Your task to perform on an android device: toggle priority inbox in the gmail app Image 0: 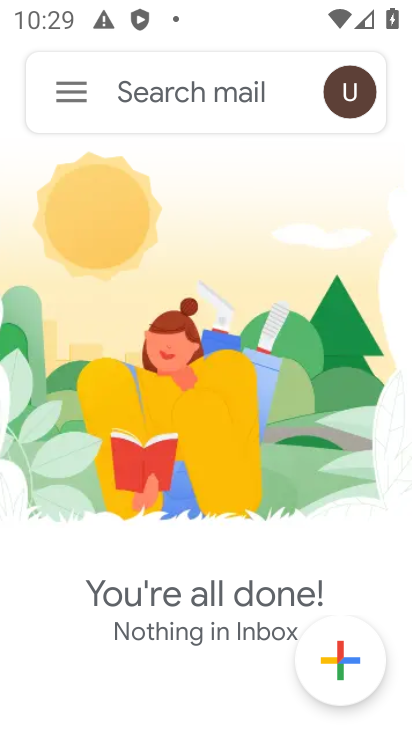
Step 0: task complete